Your task to perform on an android device: Open the map Image 0: 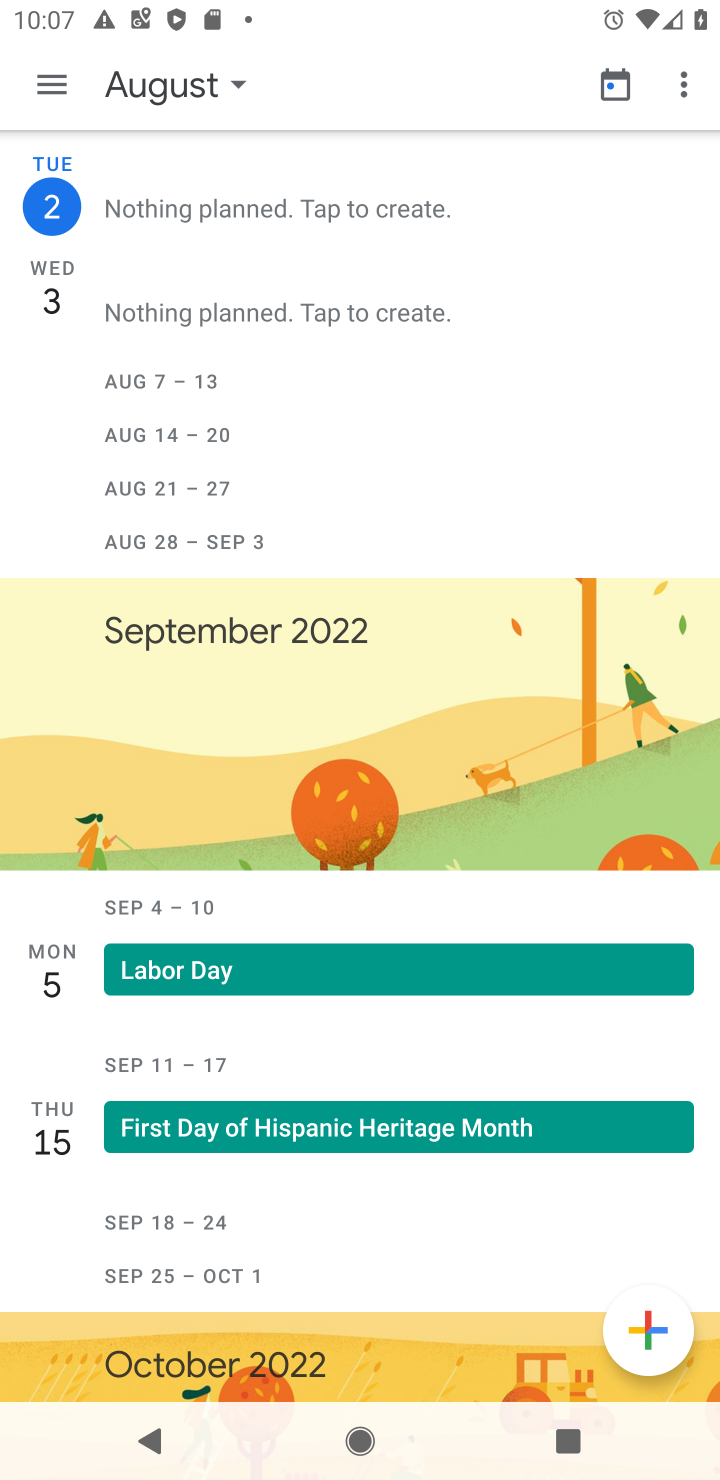
Step 0: press home button
Your task to perform on an android device: Open the map Image 1: 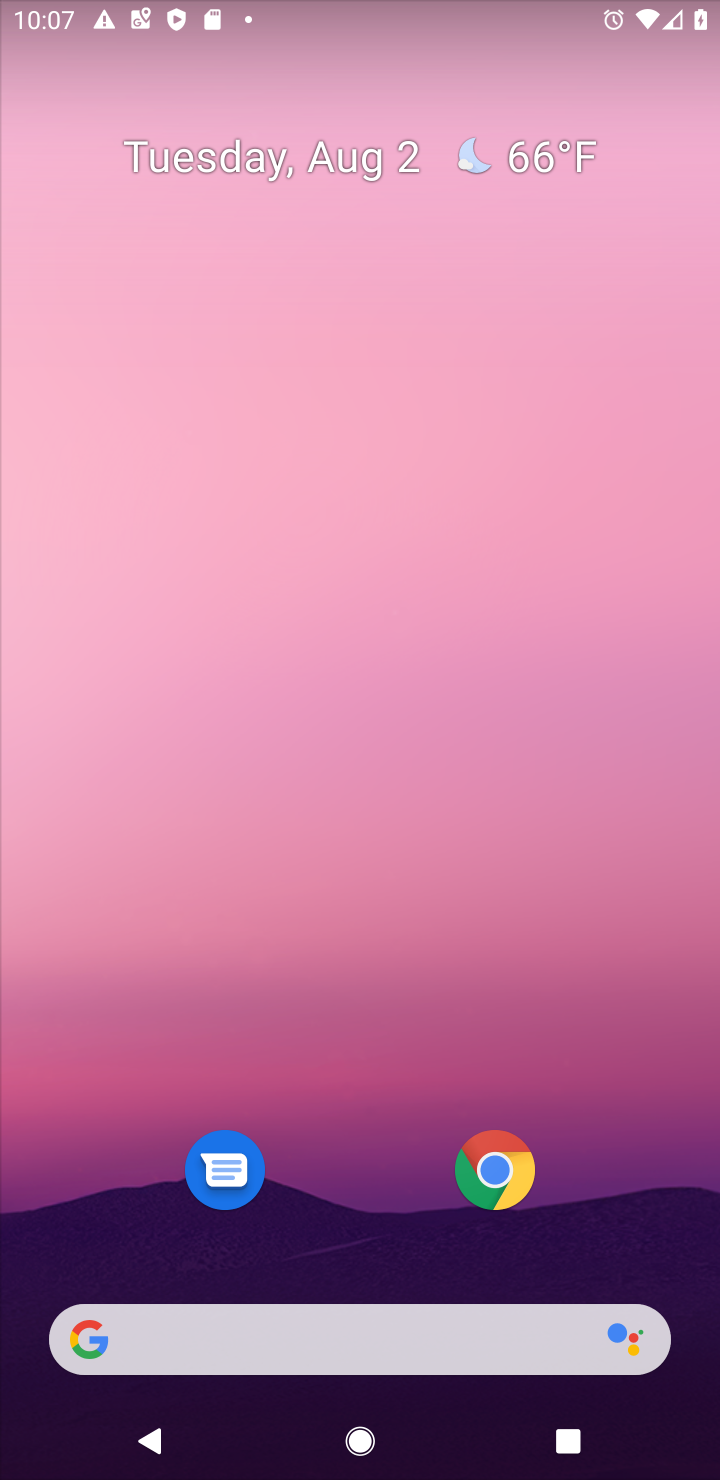
Step 1: drag from (305, 1101) to (347, 477)
Your task to perform on an android device: Open the map Image 2: 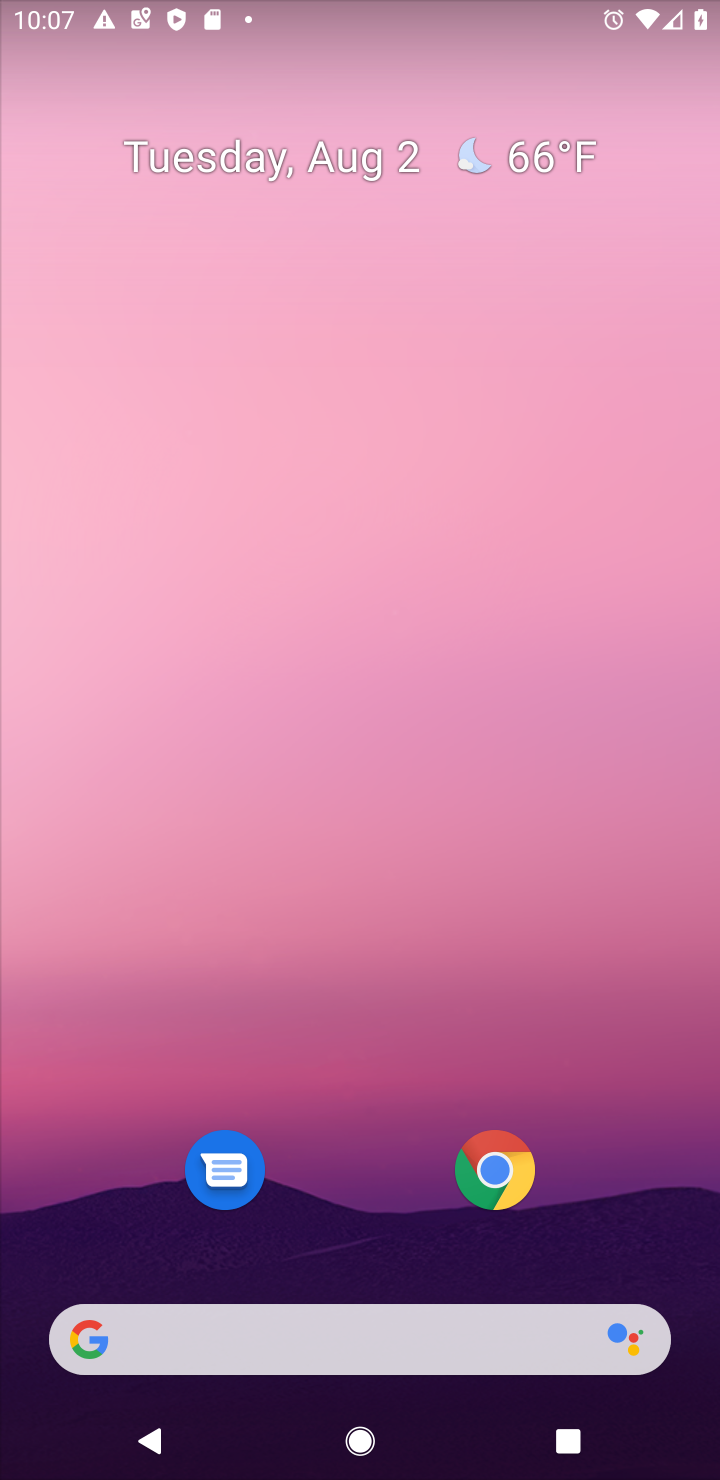
Step 2: drag from (296, 657) to (297, 124)
Your task to perform on an android device: Open the map Image 3: 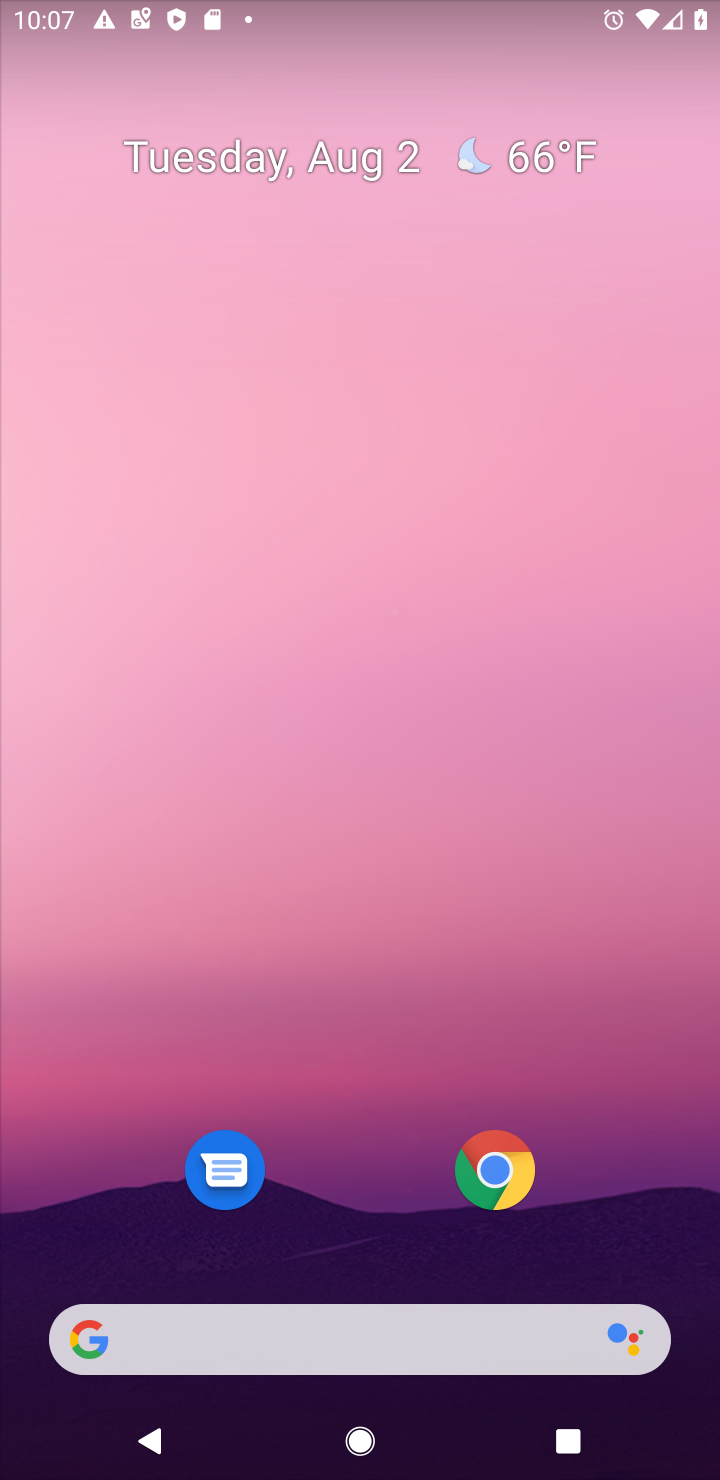
Step 3: drag from (387, 802) to (481, 128)
Your task to perform on an android device: Open the map Image 4: 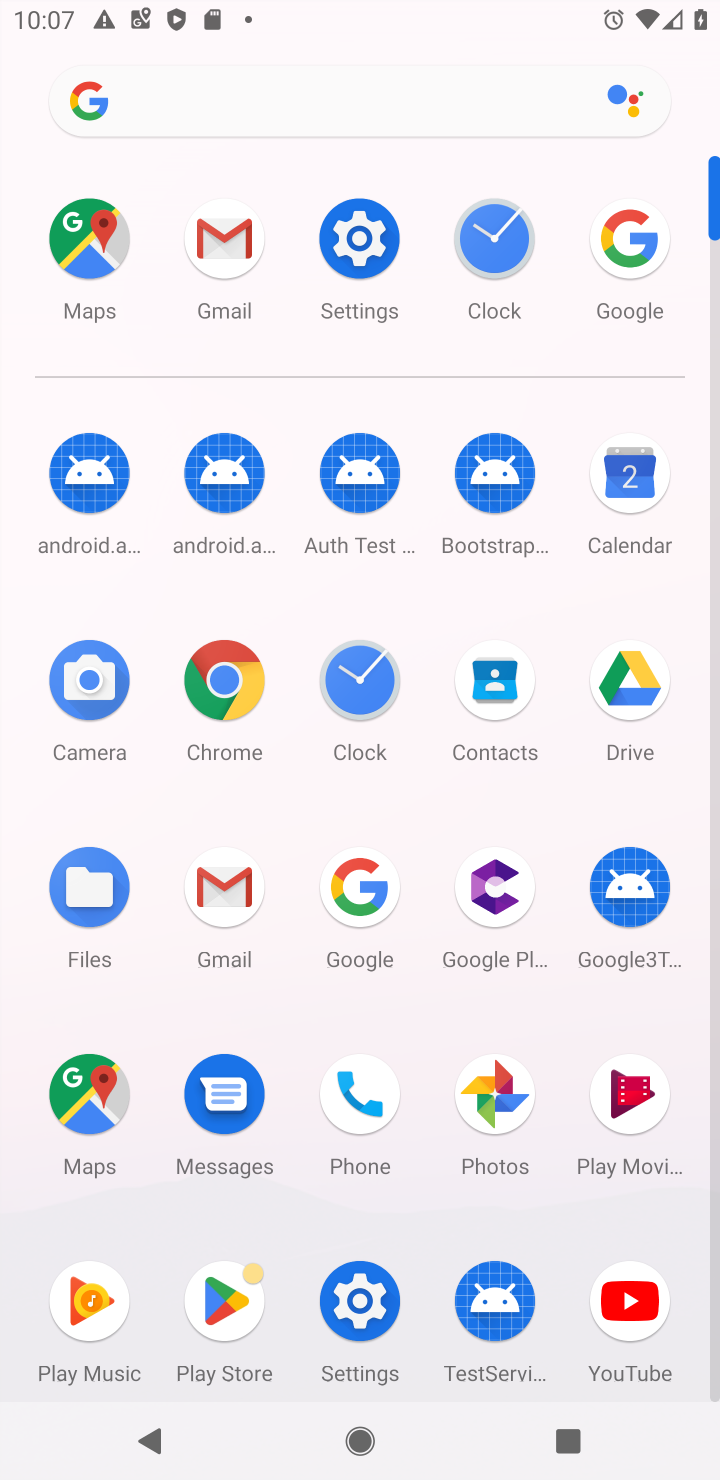
Step 4: click (69, 1090)
Your task to perform on an android device: Open the map Image 5: 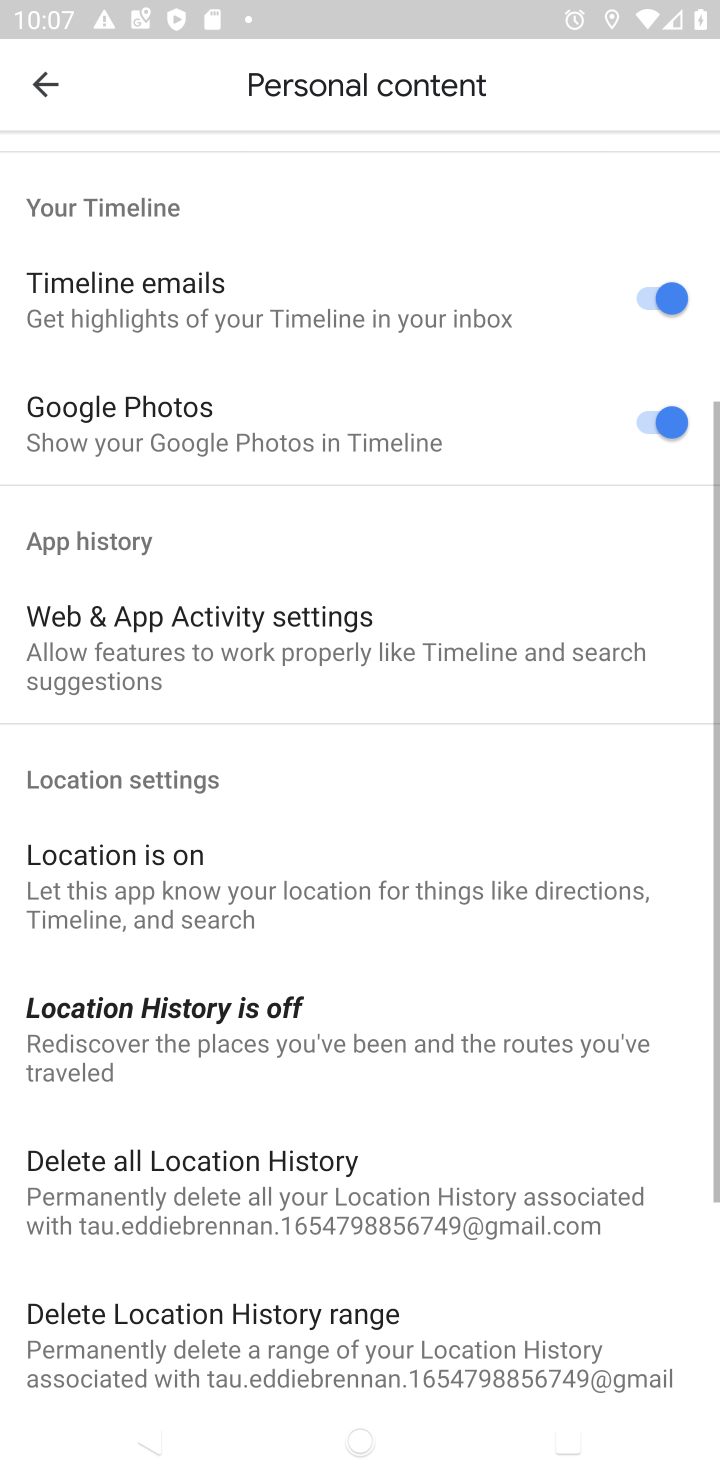
Step 5: task complete